Your task to perform on an android device: Open Google Maps Image 0: 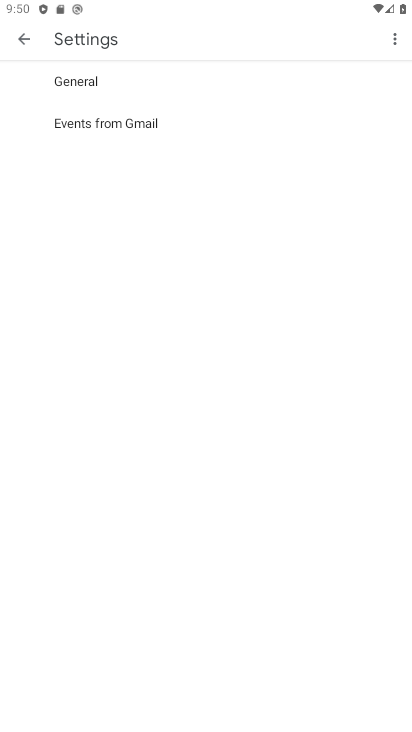
Step 0: click (17, 19)
Your task to perform on an android device: Open Google Maps Image 1: 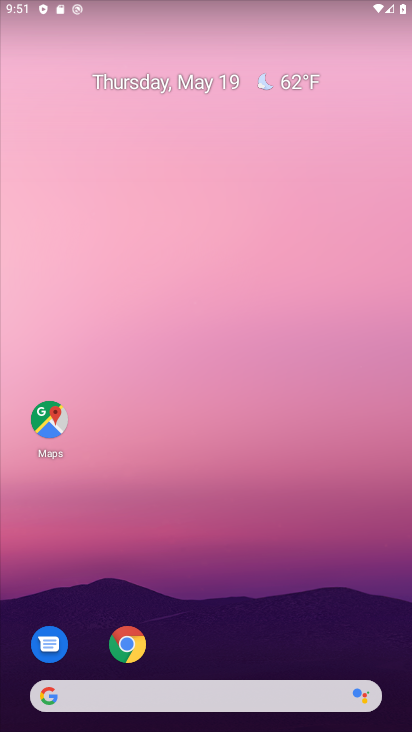
Step 1: drag from (247, 616) to (96, 40)
Your task to perform on an android device: Open Google Maps Image 2: 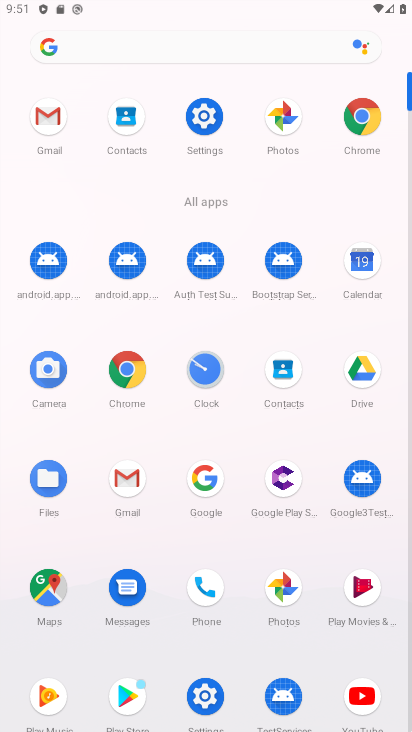
Step 2: click (52, 585)
Your task to perform on an android device: Open Google Maps Image 3: 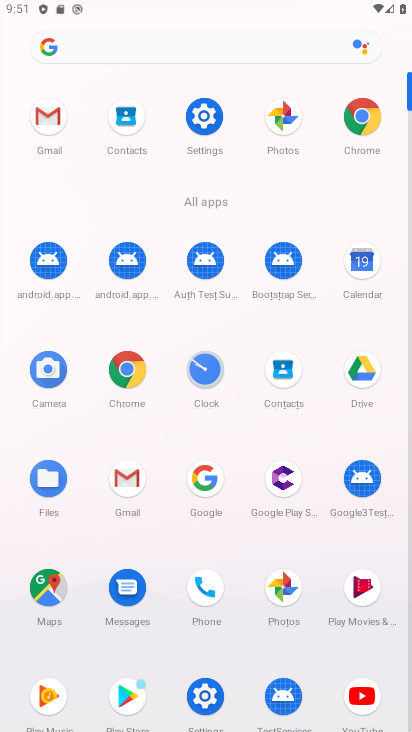
Step 3: click (52, 584)
Your task to perform on an android device: Open Google Maps Image 4: 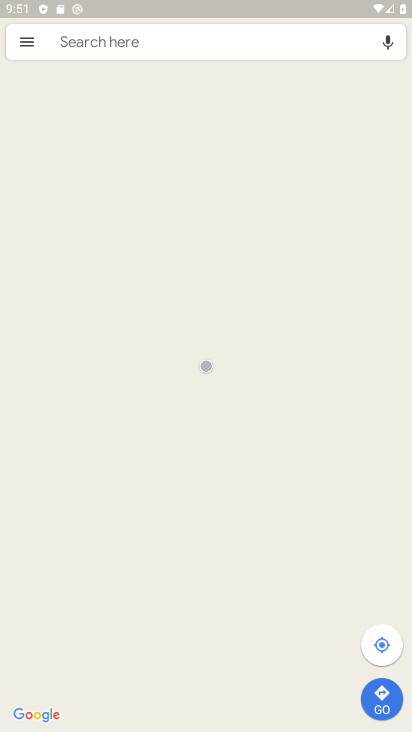
Step 4: task complete